Your task to perform on an android device: Search for Mexican restaurants on Maps Image 0: 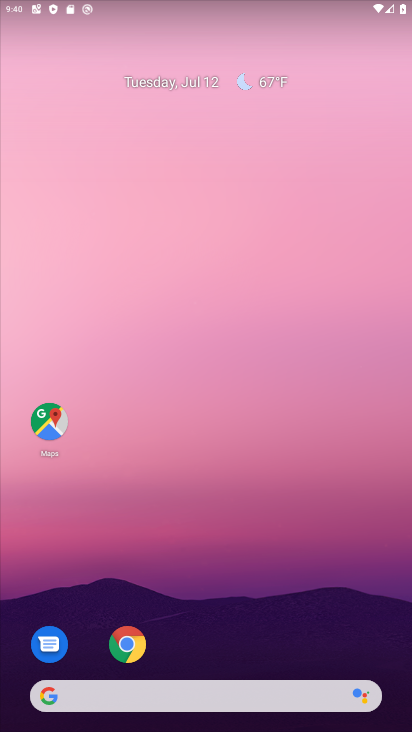
Step 0: drag from (236, 618) to (367, 48)
Your task to perform on an android device: Search for Mexican restaurants on Maps Image 1: 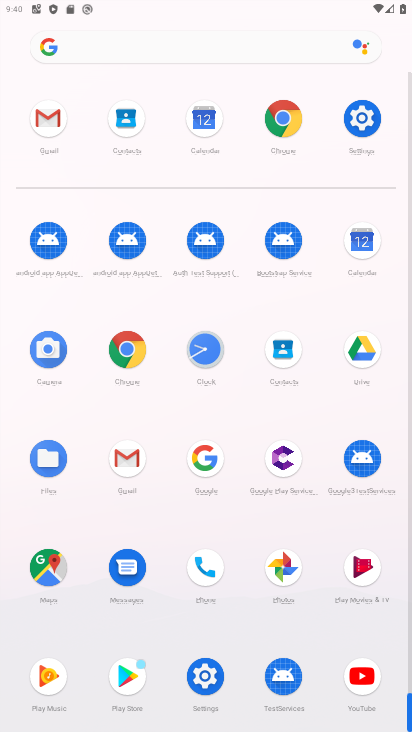
Step 1: click (47, 579)
Your task to perform on an android device: Search for Mexican restaurants on Maps Image 2: 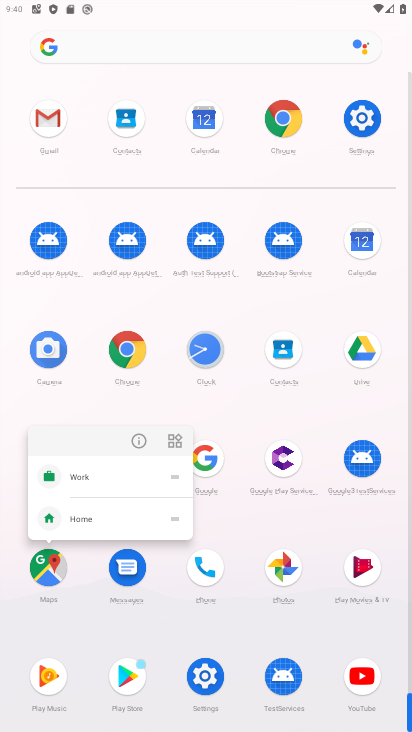
Step 2: click (138, 443)
Your task to perform on an android device: Search for Mexican restaurants on Maps Image 3: 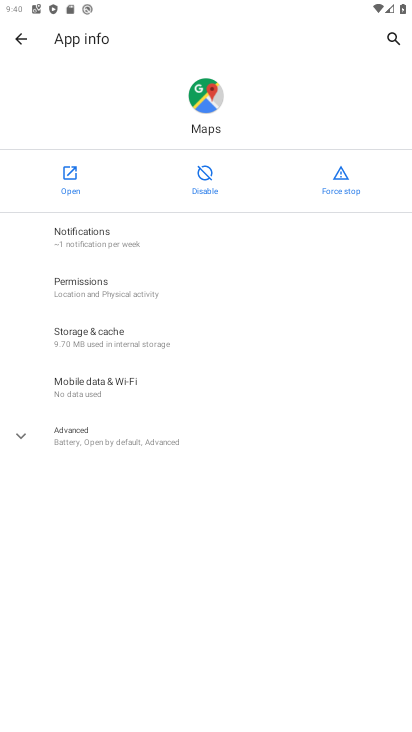
Step 3: click (62, 181)
Your task to perform on an android device: Search for Mexican restaurants on Maps Image 4: 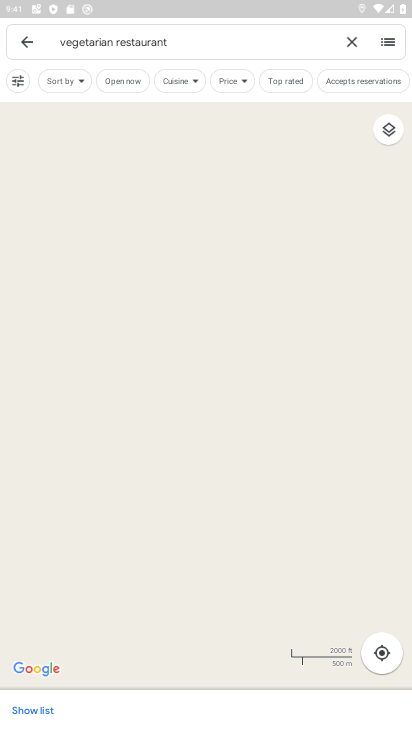
Step 4: click (349, 41)
Your task to perform on an android device: Search for Mexican restaurants on Maps Image 5: 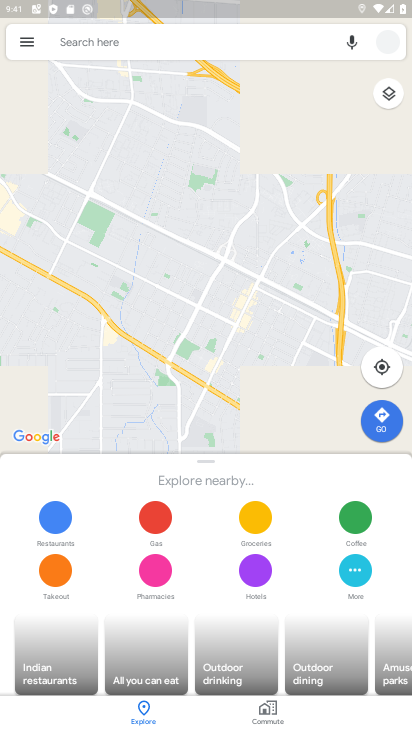
Step 5: click (70, 39)
Your task to perform on an android device: Search for Mexican restaurants on Maps Image 6: 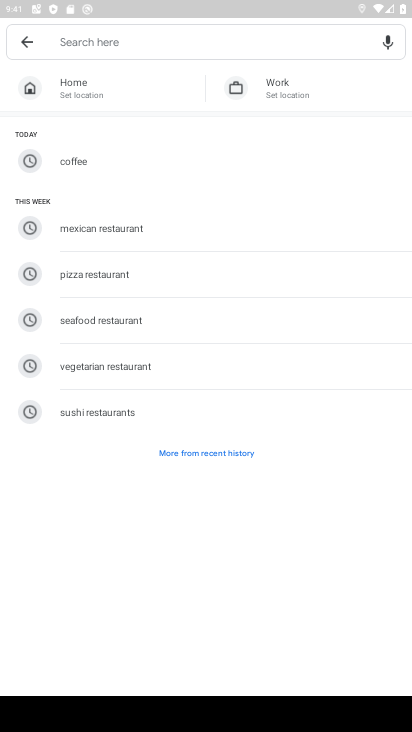
Step 6: click (103, 226)
Your task to perform on an android device: Search for Mexican restaurants on Maps Image 7: 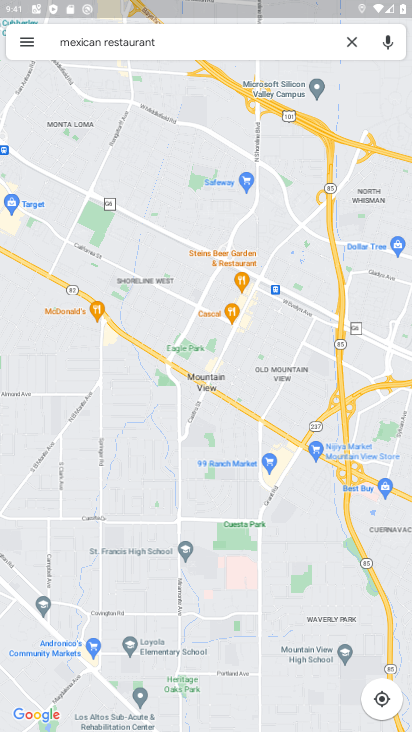
Step 7: task complete